Your task to perform on an android device: Open display settings Image 0: 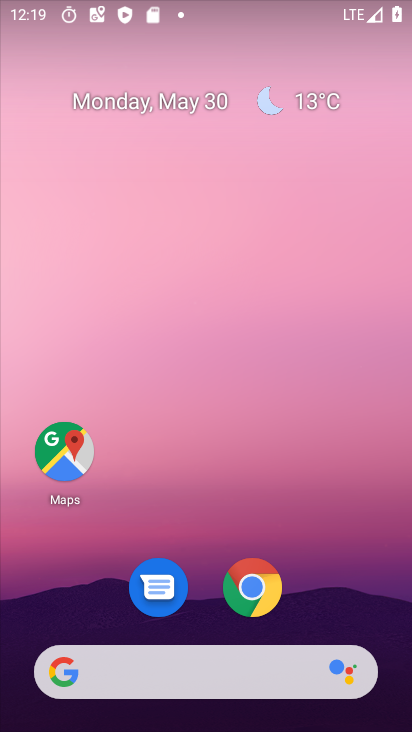
Step 0: drag from (310, 534) to (281, 35)
Your task to perform on an android device: Open display settings Image 1: 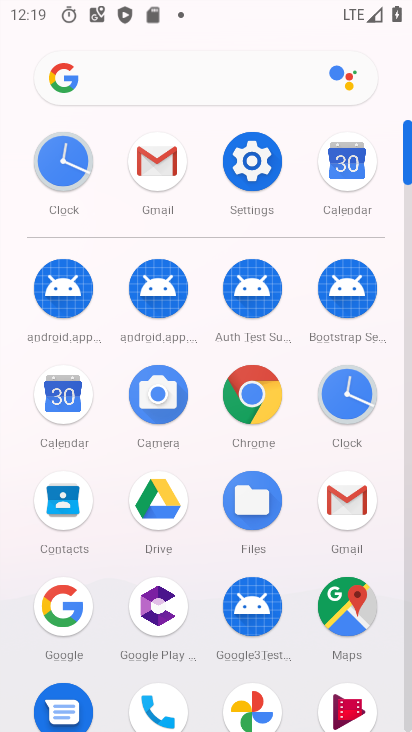
Step 1: click (246, 161)
Your task to perform on an android device: Open display settings Image 2: 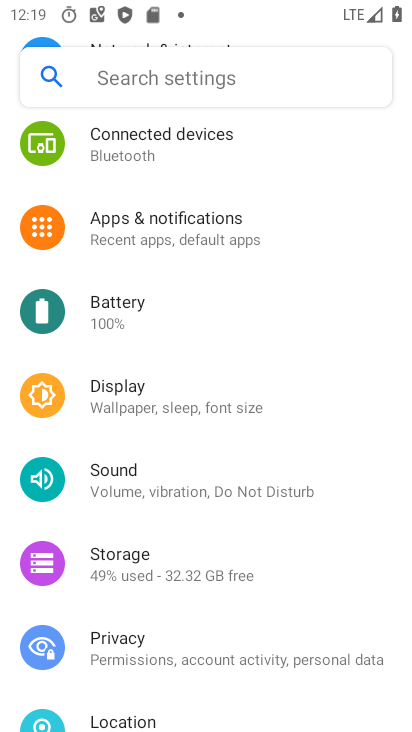
Step 2: drag from (169, 583) to (213, 213)
Your task to perform on an android device: Open display settings Image 3: 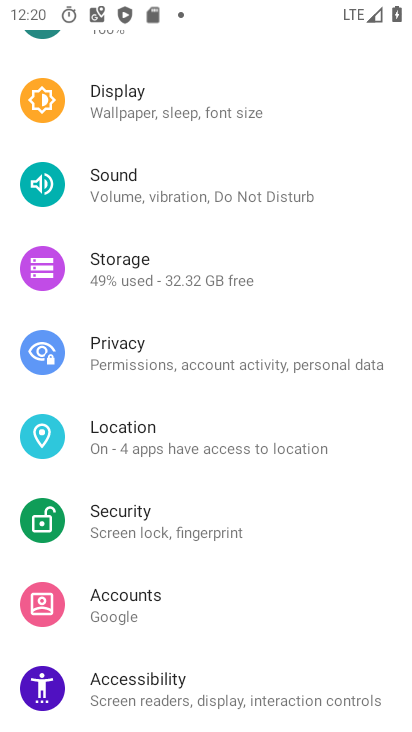
Step 3: click (170, 116)
Your task to perform on an android device: Open display settings Image 4: 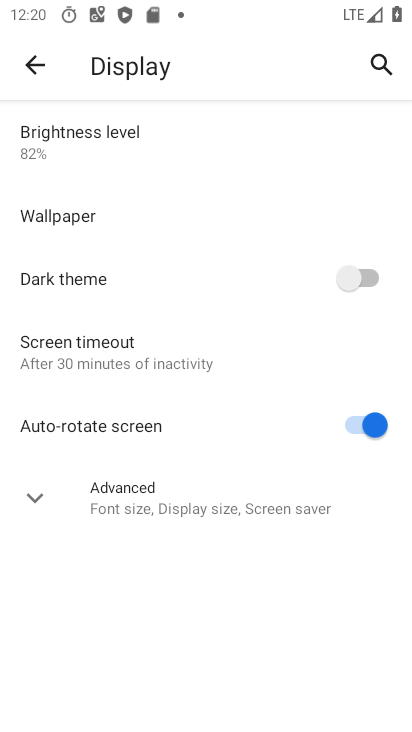
Step 4: task complete